Your task to perform on an android device: Go to accessibility settings Image 0: 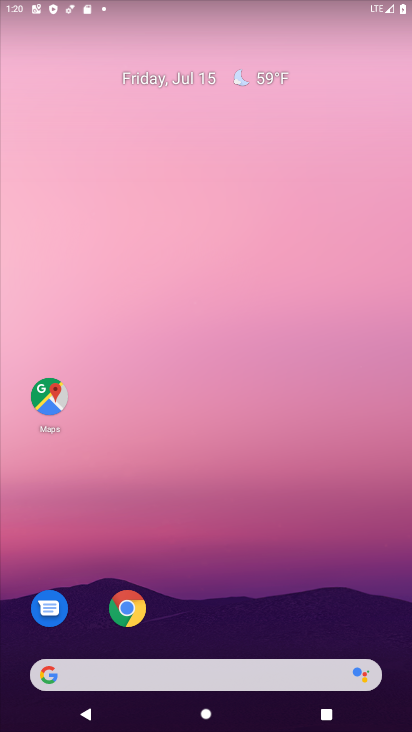
Step 0: drag from (190, 634) to (174, 251)
Your task to perform on an android device: Go to accessibility settings Image 1: 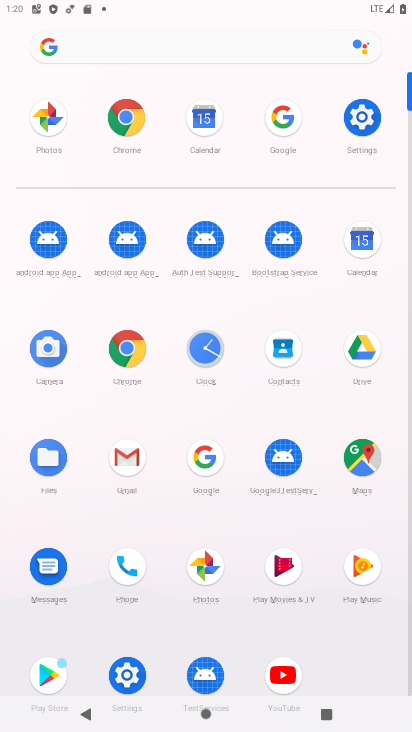
Step 1: click (358, 123)
Your task to perform on an android device: Go to accessibility settings Image 2: 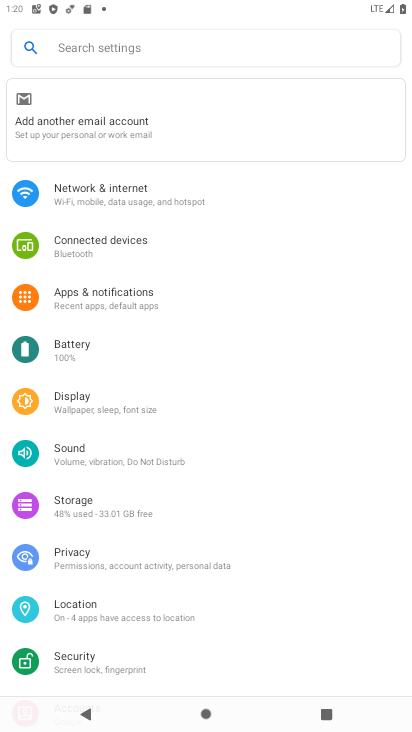
Step 2: drag from (137, 673) to (128, 235)
Your task to perform on an android device: Go to accessibility settings Image 3: 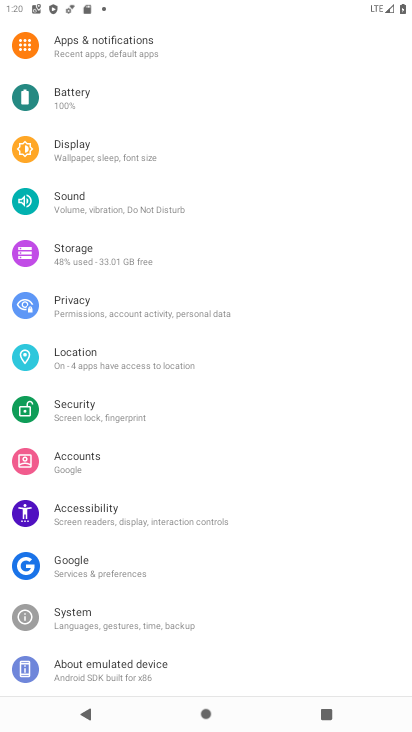
Step 3: click (107, 515)
Your task to perform on an android device: Go to accessibility settings Image 4: 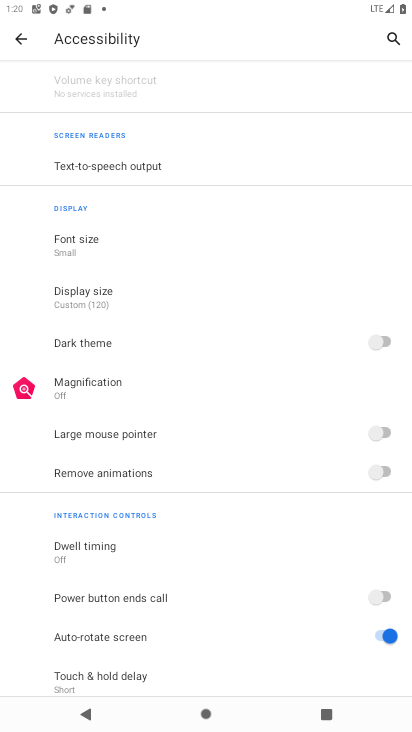
Step 4: task complete